Your task to perform on an android device: Go to Wikipedia Image 0: 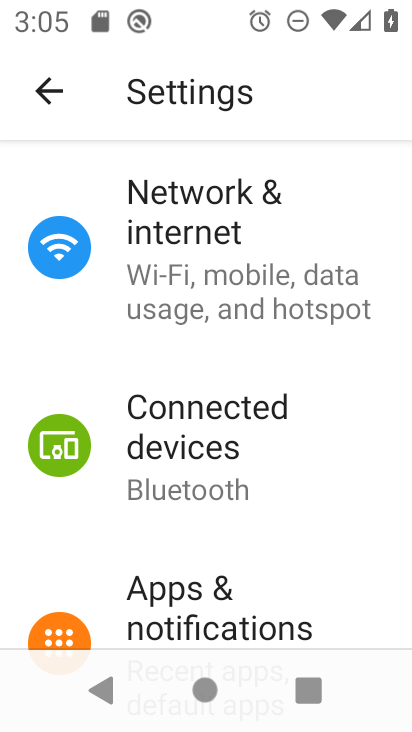
Step 0: press home button
Your task to perform on an android device: Go to Wikipedia Image 1: 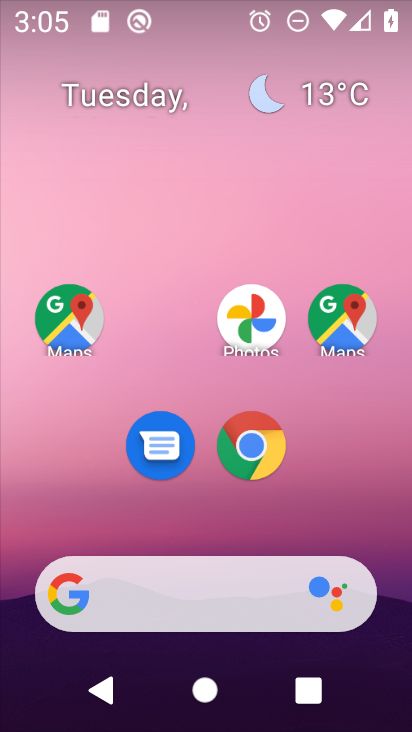
Step 1: drag from (390, 558) to (385, 213)
Your task to perform on an android device: Go to Wikipedia Image 2: 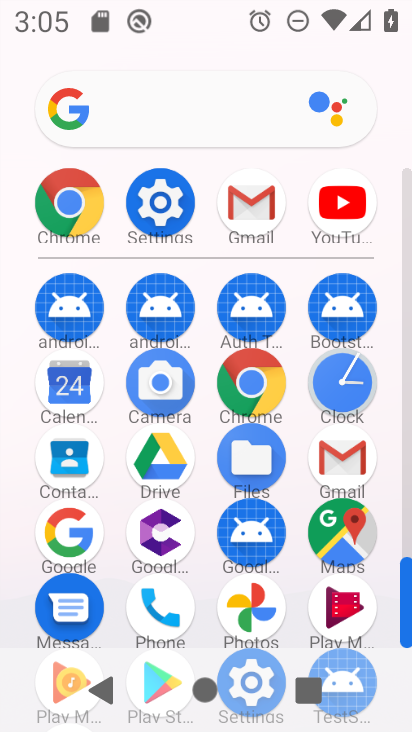
Step 2: click (263, 394)
Your task to perform on an android device: Go to Wikipedia Image 3: 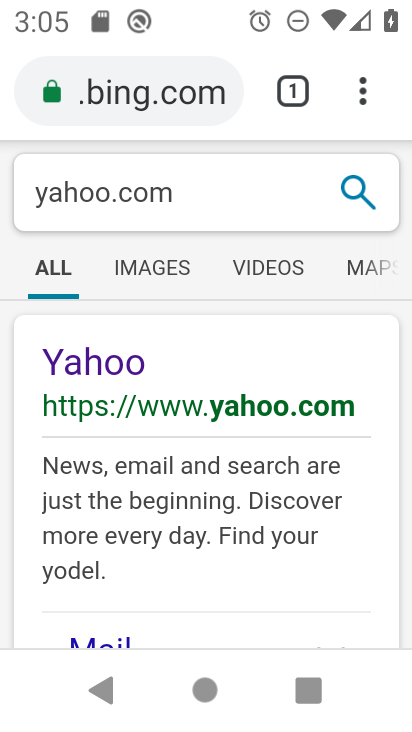
Step 3: click (164, 86)
Your task to perform on an android device: Go to Wikipedia Image 4: 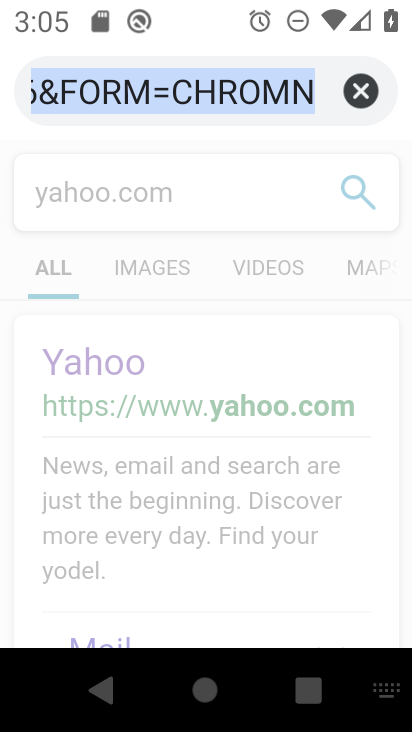
Step 4: click (367, 91)
Your task to perform on an android device: Go to Wikipedia Image 5: 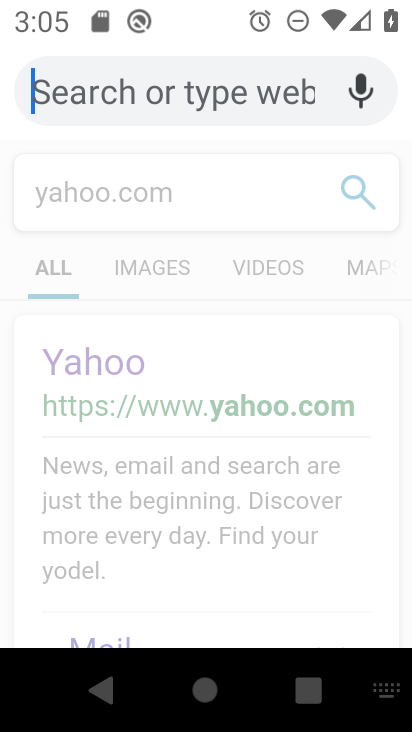
Step 5: type "wikipida"
Your task to perform on an android device: Go to Wikipedia Image 6: 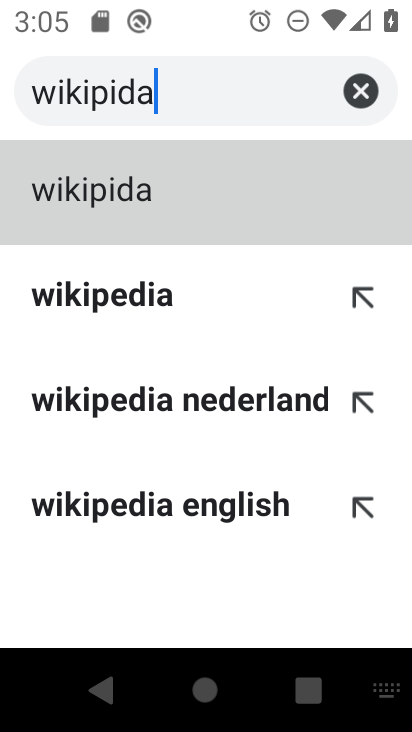
Step 6: click (172, 305)
Your task to perform on an android device: Go to Wikipedia Image 7: 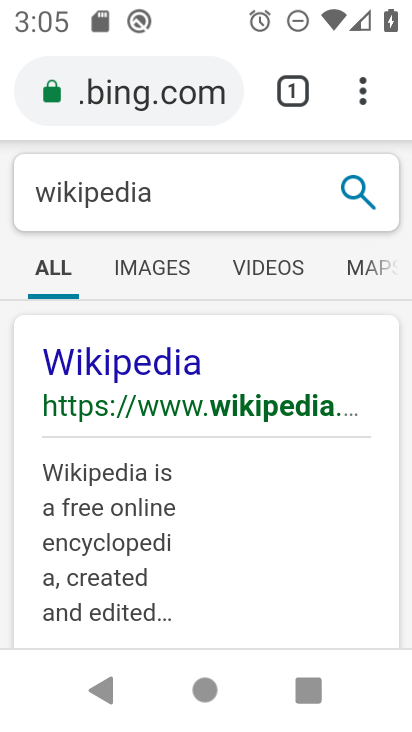
Step 7: click (130, 368)
Your task to perform on an android device: Go to Wikipedia Image 8: 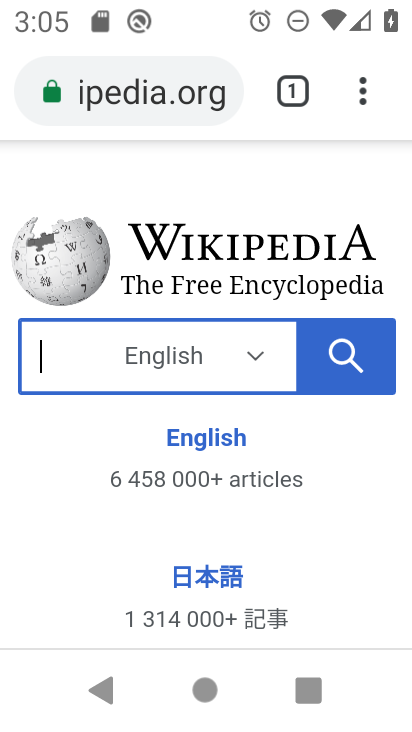
Step 8: task complete